Your task to perform on an android device: Open my contact list Image 0: 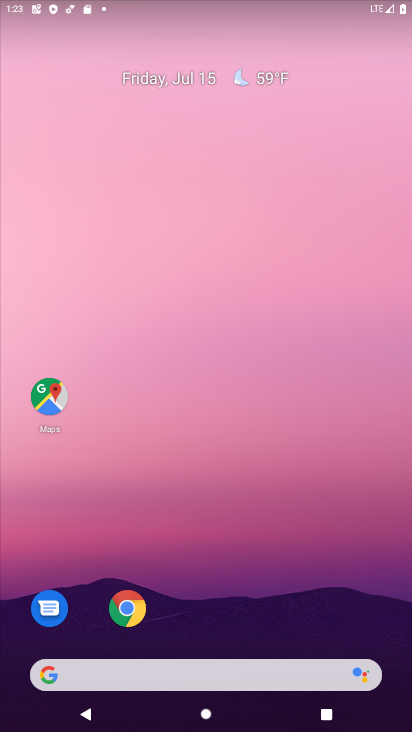
Step 0: drag from (153, 651) to (201, 330)
Your task to perform on an android device: Open my contact list Image 1: 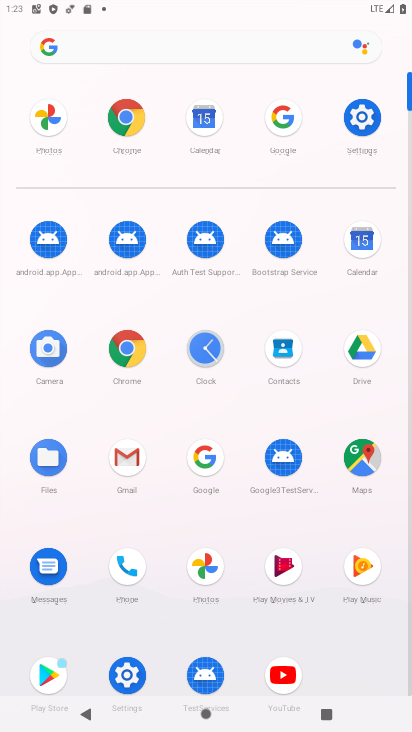
Step 1: click (289, 347)
Your task to perform on an android device: Open my contact list Image 2: 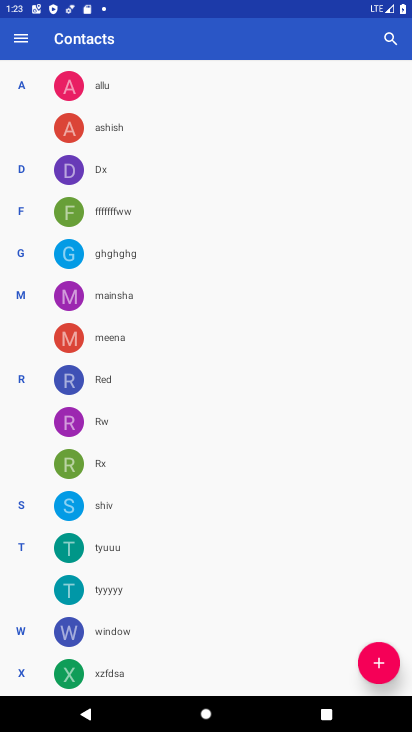
Step 2: task complete